Your task to perform on an android device: turn off location history Image 0: 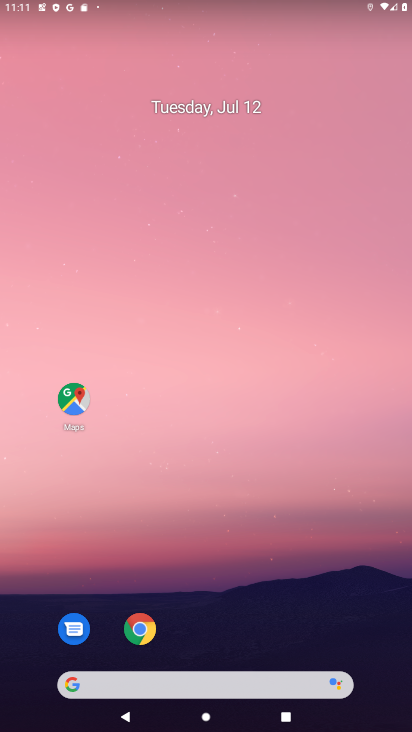
Step 0: drag from (256, 595) to (252, 258)
Your task to perform on an android device: turn off location history Image 1: 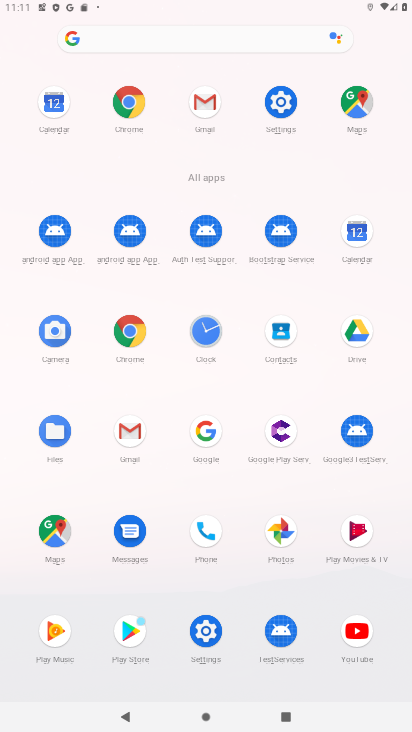
Step 1: click (275, 118)
Your task to perform on an android device: turn off location history Image 2: 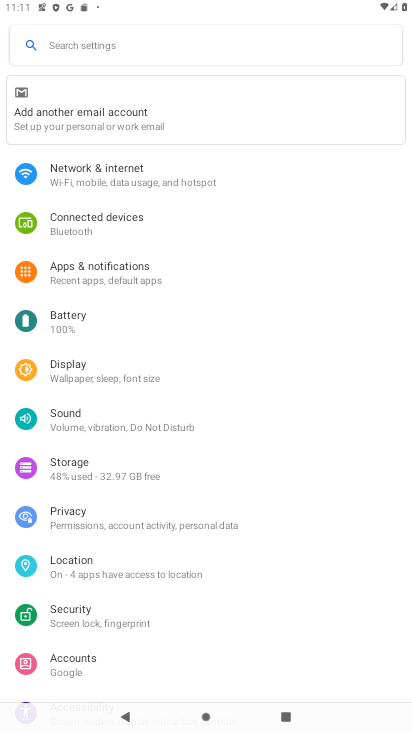
Step 2: click (102, 554)
Your task to perform on an android device: turn off location history Image 3: 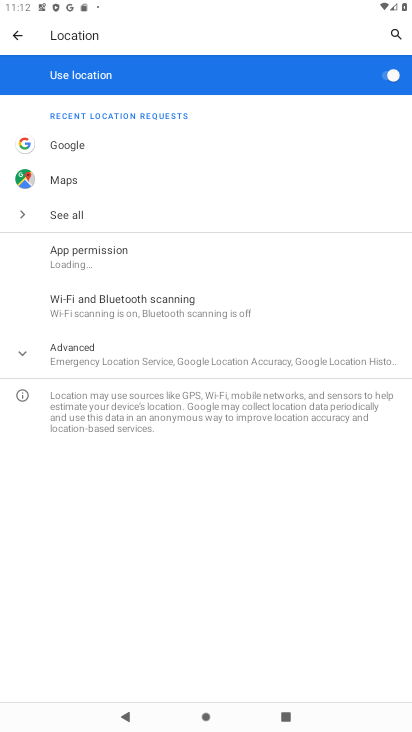
Step 3: click (140, 351)
Your task to perform on an android device: turn off location history Image 4: 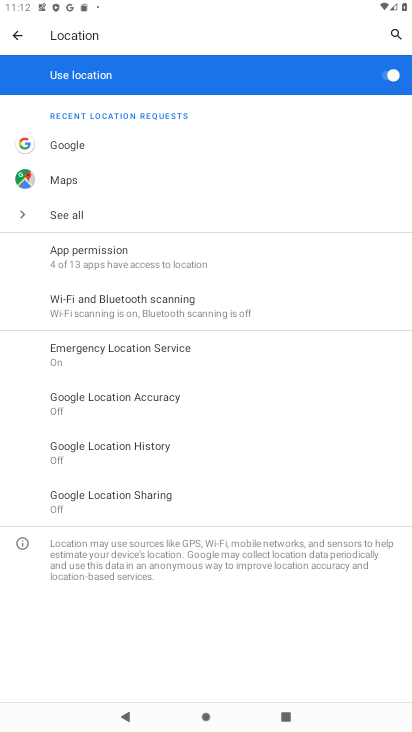
Step 4: click (178, 448)
Your task to perform on an android device: turn off location history Image 5: 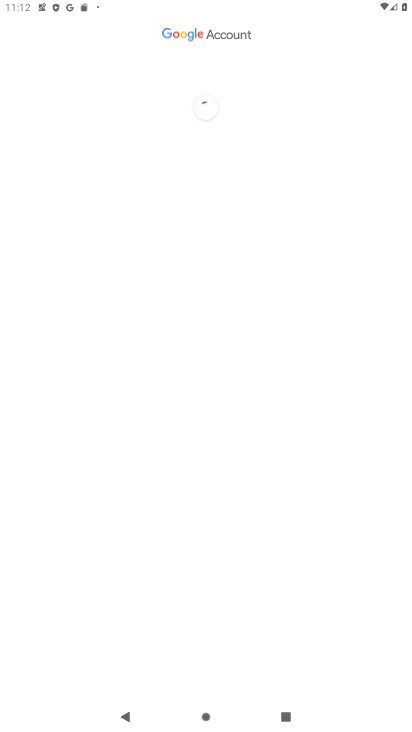
Step 5: task complete